Your task to perform on an android device: Open the calendar and show me this week's events? Image 0: 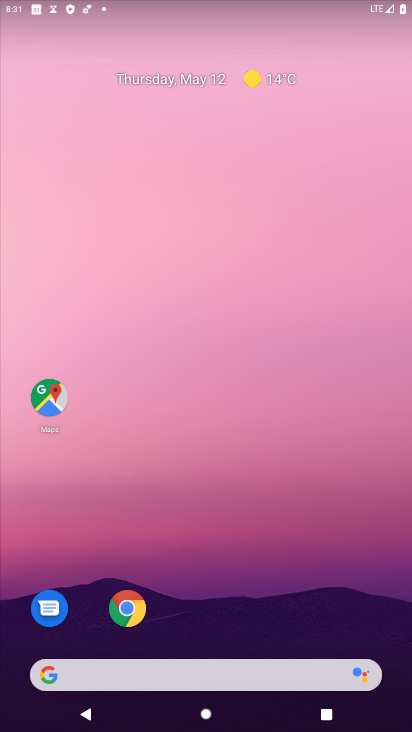
Step 0: drag from (222, 663) to (267, 230)
Your task to perform on an android device: Open the calendar and show me this week's events? Image 1: 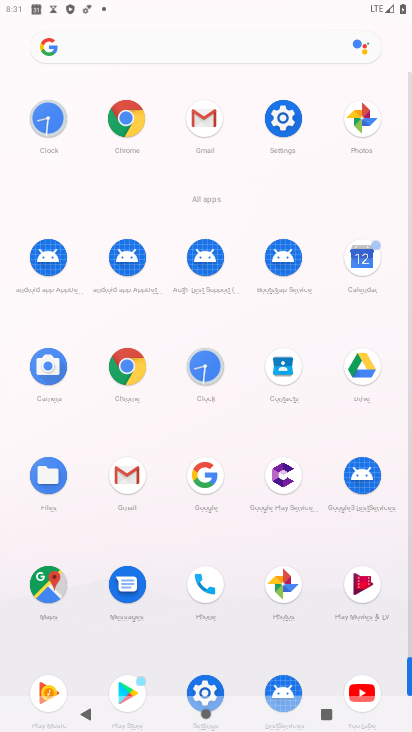
Step 1: click (374, 261)
Your task to perform on an android device: Open the calendar and show me this week's events? Image 2: 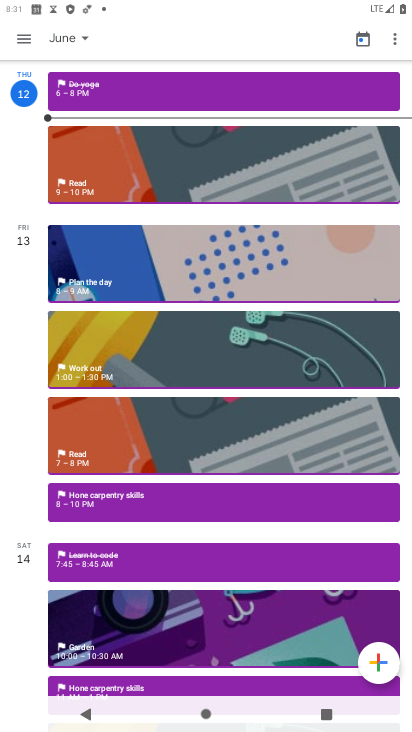
Step 2: click (160, 275)
Your task to perform on an android device: Open the calendar and show me this week's events? Image 3: 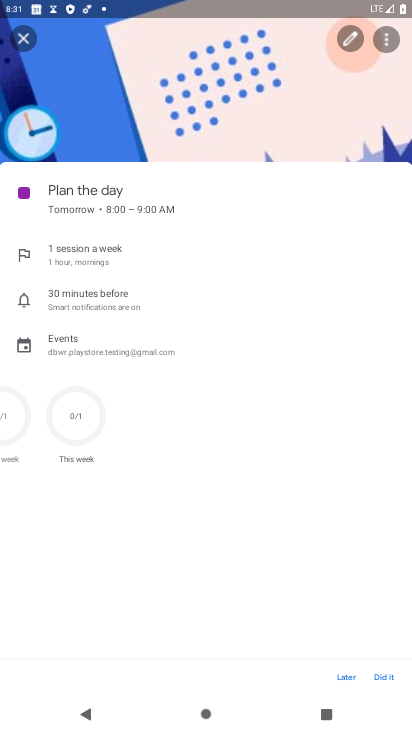
Step 3: task complete